Your task to perform on an android device: open app "Pluto TV - Live TV and Movies" (install if not already installed) Image 0: 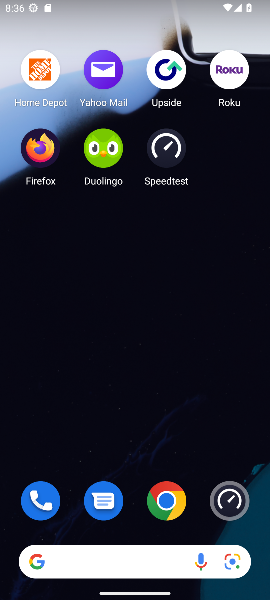
Step 0: drag from (147, 519) to (153, 186)
Your task to perform on an android device: open app "Pluto TV - Live TV and Movies" (install if not already installed) Image 1: 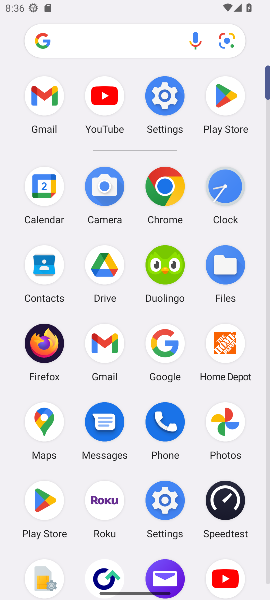
Step 1: click (229, 106)
Your task to perform on an android device: open app "Pluto TV - Live TV and Movies" (install if not already installed) Image 2: 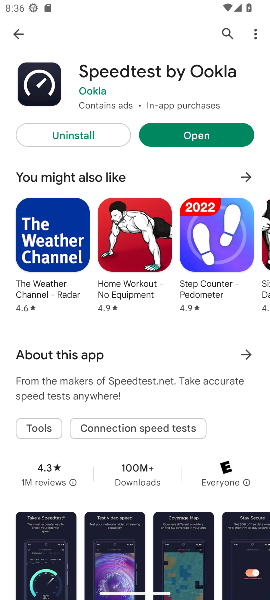
Step 2: drag from (129, 481) to (162, 8)
Your task to perform on an android device: open app "Pluto TV - Live TV and Movies" (install if not already installed) Image 3: 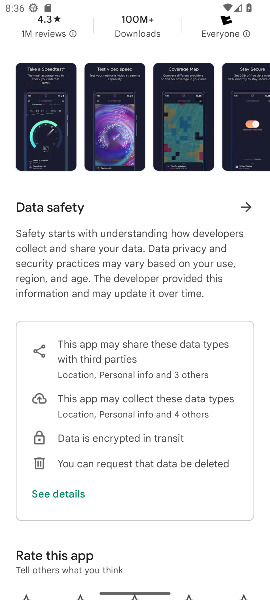
Step 3: press home button
Your task to perform on an android device: open app "Pluto TV - Live TV and Movies" (install if not already installed) Image 4: 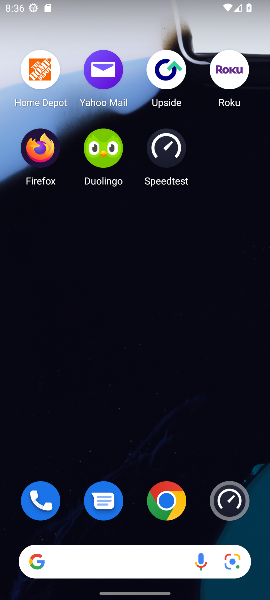
Step 4: drag from (137, 563) to (141, 220)
Your task to perform on an android device: open app "Pluto TV - Live TV and Movies" (install if not already installed) Image 5: 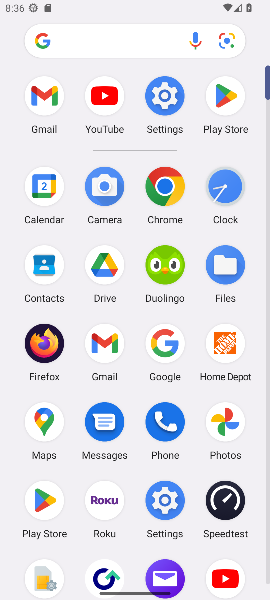
Step 5: click (219, 88)
Your task to perform on an android device: open app "Pluto TV - Live TV and Movies" (install if not already installed) Image 6: 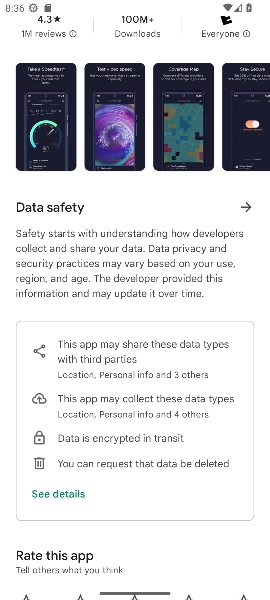
Step 6: drag from (156, 212) to (123, 568)
Your task to perform on an android device: open app "Pluto TV - Live TV and Movies" (install if not already installed) Image 7: 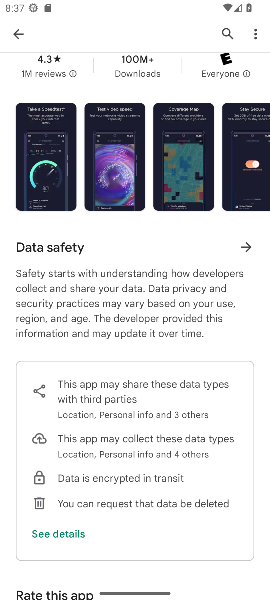
Step 7: click (234, 30)
Your task to perform on an android device: open app "Pluto TV - Live TV and Movies" (install if not already installed) Image 8: 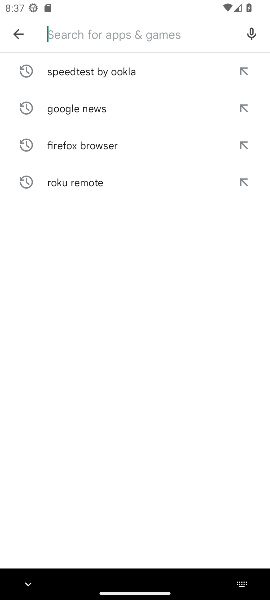
Step 8: type "Pluto TV - Live TV and Movies"
Your task to perform on an android device: open app "Pluto TV - Live TV and Movies" (install if not already installed) Image 9: 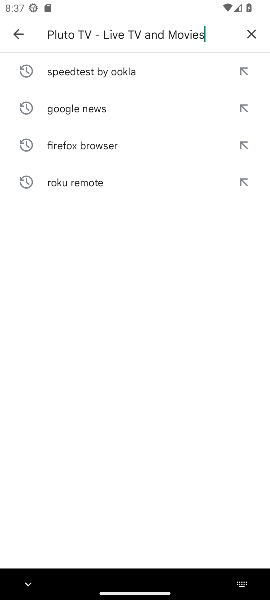
Step 9: type ""
Your task to perform on an android device: open app "Pluto TV - Live TV and Movies" (install if not already installed) Image 10: 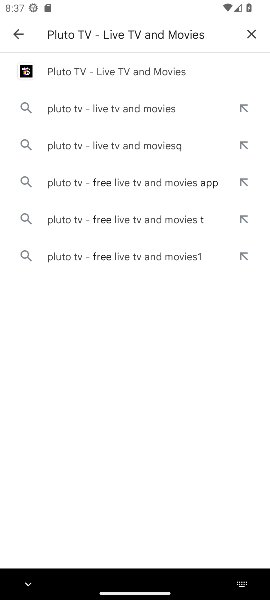
Step 10: click (93, 73)
Your task to perform on an android device: open app "Pluto TV - Live TV and Movies" (install if not already installed) Image 11: 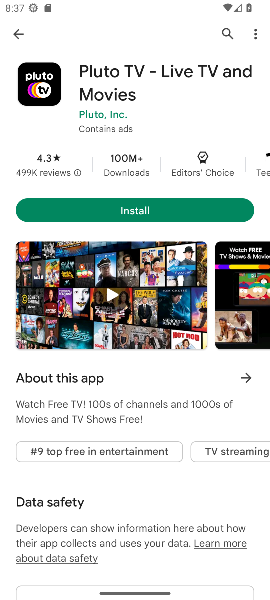
Step 11: click (154, 207)
Your task to perform on an android device: open app "Pluto TV - Live TV and Movies" (install if not already installed) Image 12: 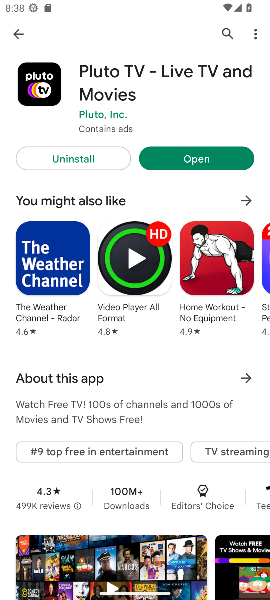
Step 12: drag from (116, 192) to (220, 588)
Your task to perform on an android device: open app "Pluto TV - Live TV and Movies" (install if not already installed) Image 13: 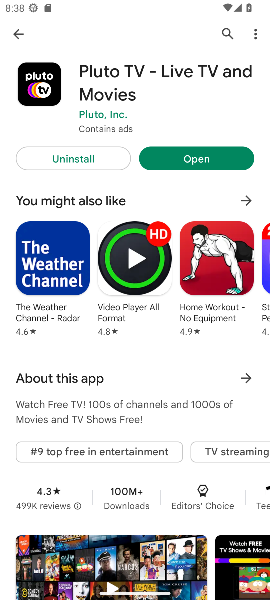
Step 13: click (195, 166)
Your task to perform on an android device: open app "Pluto TV - Live TV and Movies" (install if not already installed) Image 14: 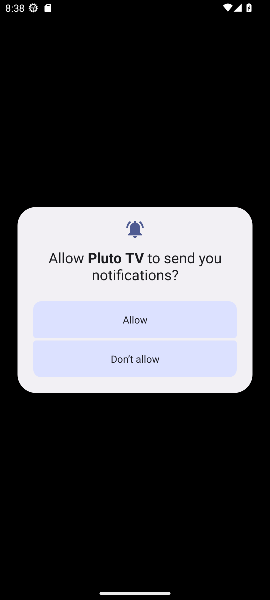
Step 14: task complete